Your task to perform on an android device: turn on location history Image 0: 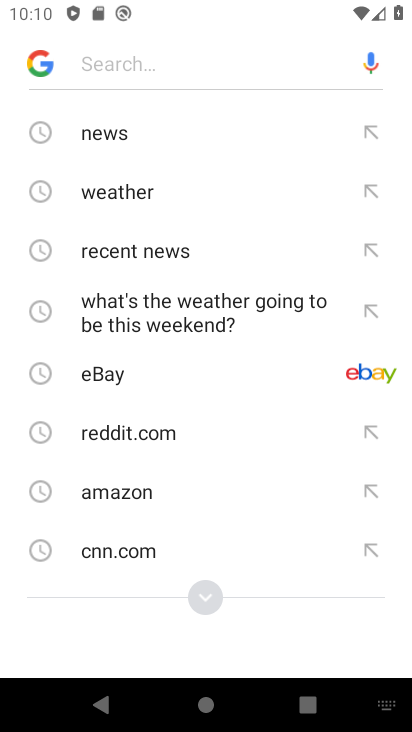
Step 0: press home button
Your task to perform on an android device: turn on location history Image 1: 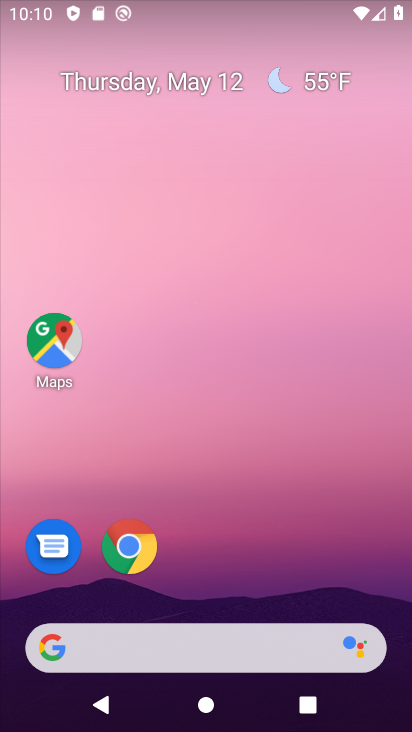
Step 1: drag from (176, 530) to (195, 125)
Your task to perform on an android device: turn on location history Image 2: 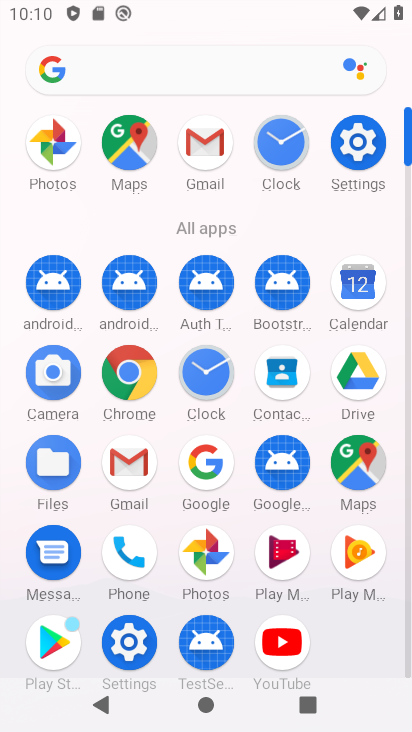
Step 2: click (364, 146)
Your task to perform on an android device: turn on location history Image 3: 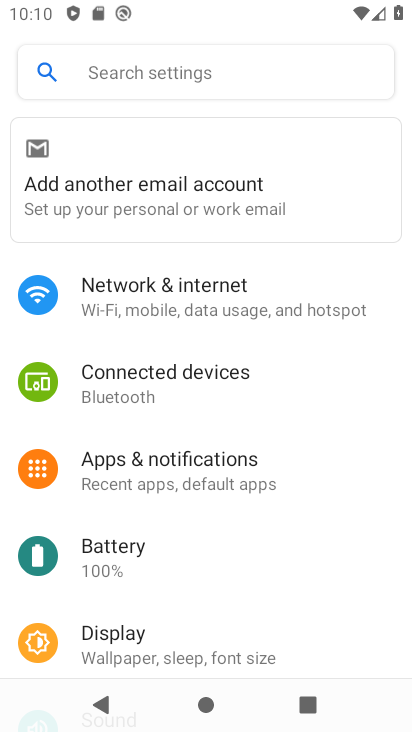
Step 3: drag from (198, 569) to (208, 210)
Your task to perform on an android device: turn on location history Image 4: 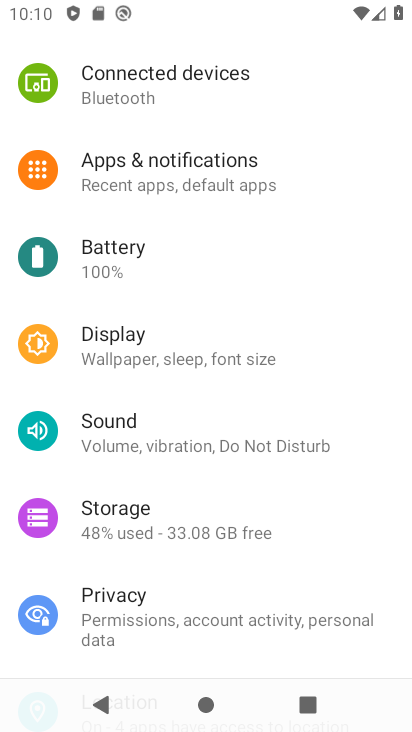
Step 4: drag from (233, 585) to (270, 227)
Your task to perform on an android device: turn on location history Image 5: 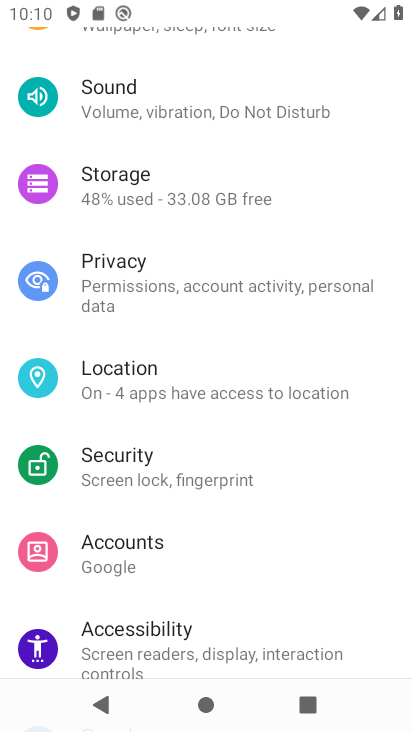
Step 5: click (172, 382)
Your task to perform on an android device: turn on location history Image 6: 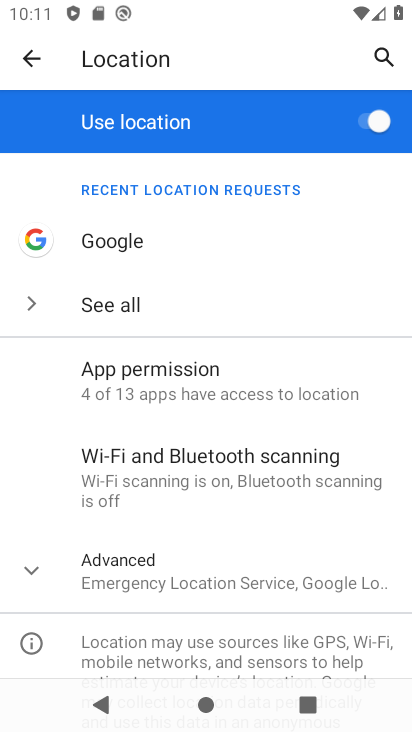
Step 6: task complete